Your task to perform on an android device: open app "Move to iOS" (install if not already installed) Image 0: 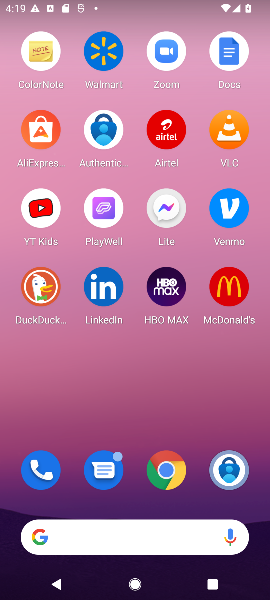
Step 0: drag from (91, 513) to (119, 75)
Your task to perform on an android device: open app "Move to iOS" (install if not already installed) Image 1: 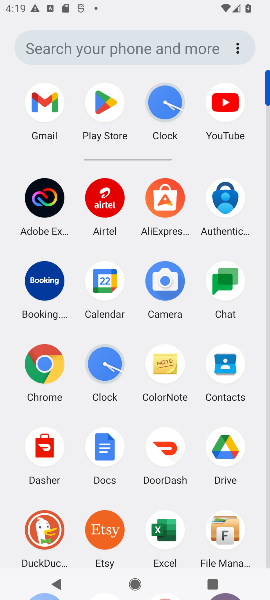
Step 1: click (101, 92)
Your task to perform on an android device: open app "Move to iOS" (install if not already installed) Image 2: 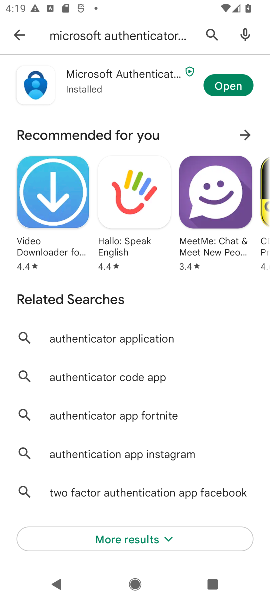
Step 2: click (11, 33)
Your task to perform on an android device: open app "Move to iOS" (install if not already installed) Image 3: 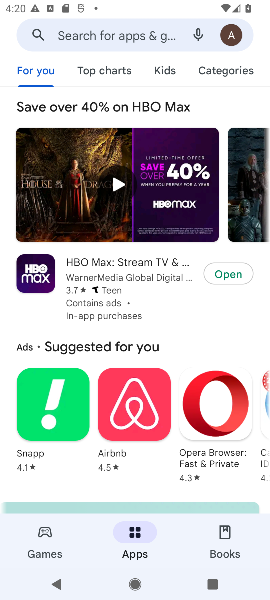
Step 3: click (150, 32)
Your task to perform on an android device: open app "Move to iOS" (install if not already installed) Image 4: 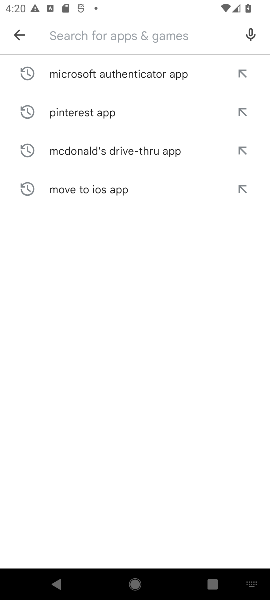
Step 4: type "Move to iOS "
Your task to perform on an android device: open app "Move to iOS" (install if not already installed) Image 5: 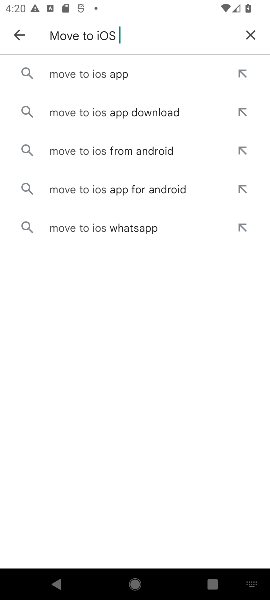
Step 5: click (92, 75)
Your task to perform on an android device: open app "Move to iOS" (install if not already installed) Image 6: 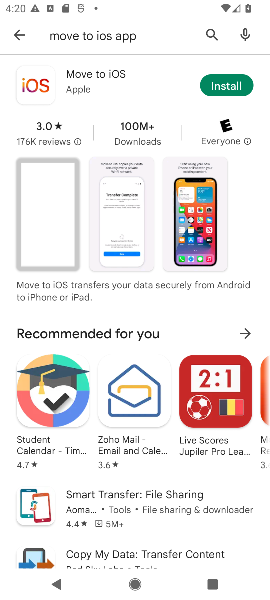
Step 6: click (224, 74)
Your task to perform on an android device: open app "Move to iOS" (install if not already installed) Image 7: 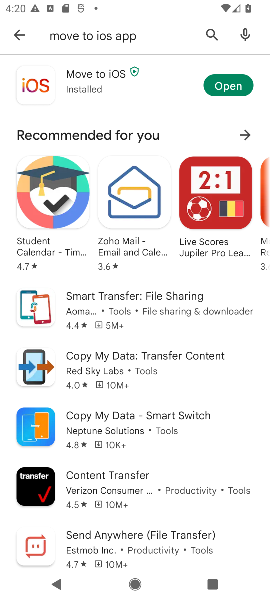
Step 7: click (221, 87)
Your task to perform on an android device: open app "Move to iOS" (install if not already installed) Image 8: 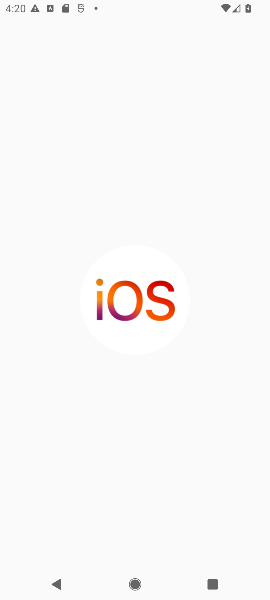
Step 8: task complete